Your task to perform on an android device: see tabs open on other devices in the chrome app Image 0: 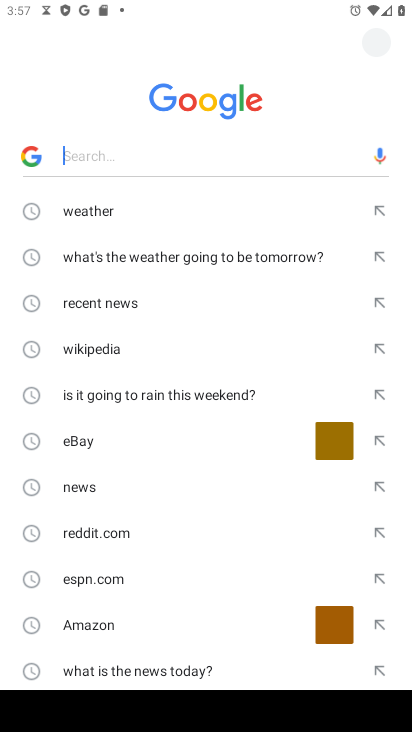
Step 0: press back button
Your task to perform on an android device: see tabs open on other devices in the chrome app Image 1: 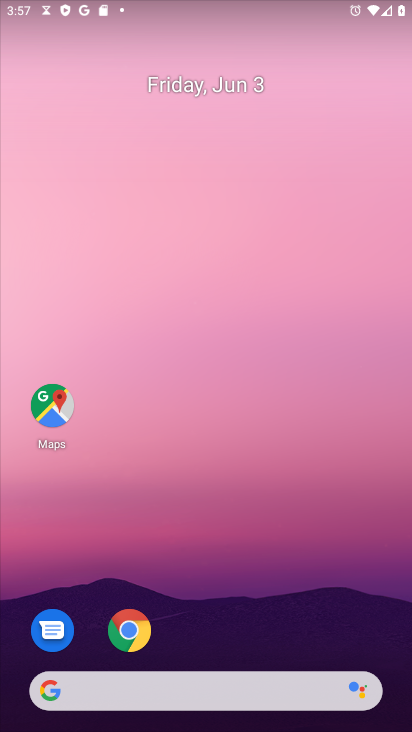
Step 1: drag from (249, 598) to (242, 7)
Your task to perform on an android device: see tabs open on other devices in the chrome app Image 2: 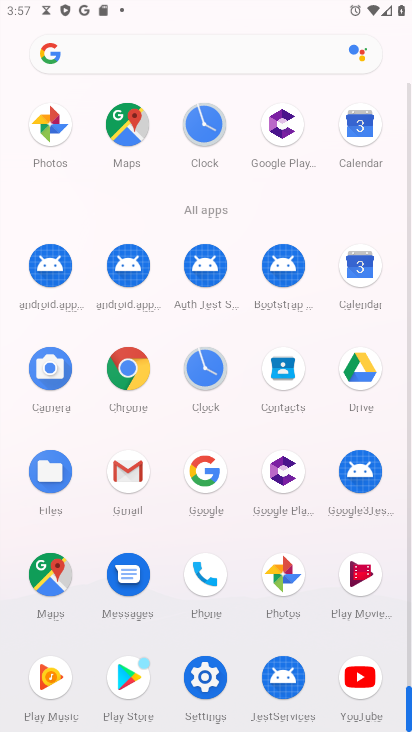
Step 2: drag from (7, 586) to (28, 262)
Your task to perform on an android device: see tabs open on other devices in the chrome app Image 3: 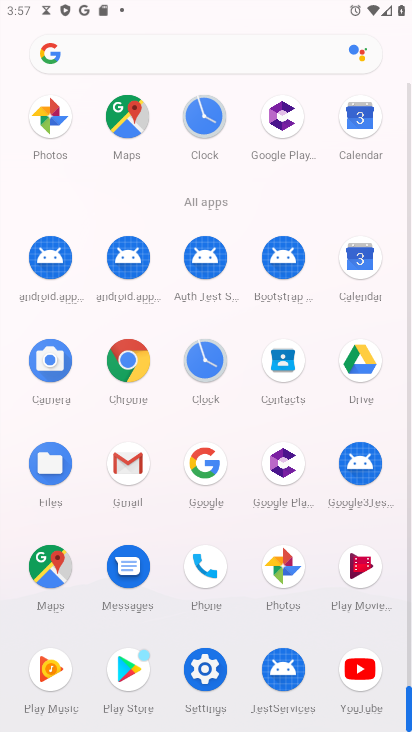
Step 3: click (203, 357)
Your task to perform on an android device: see tabs open on other devices in the chrome app Image 4: 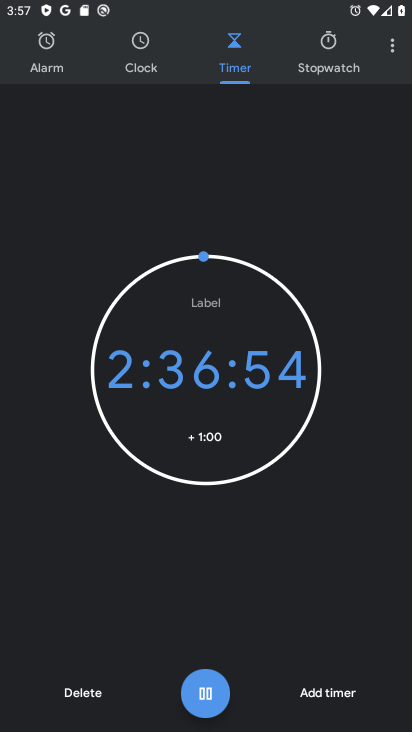
Step 4: press back button
Your task to perform on an android device: see tabs open on other devices in the chrome app Image 5: 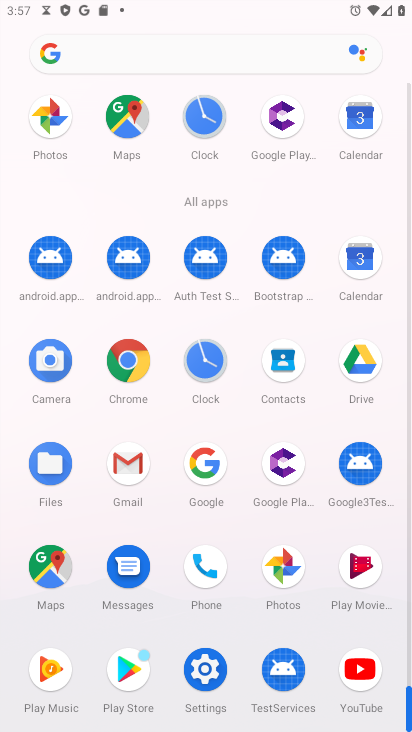
Step 5: click (130, 359)
Your task to perform on an android device: see tabs open on other devices in the chrome app Image 6: 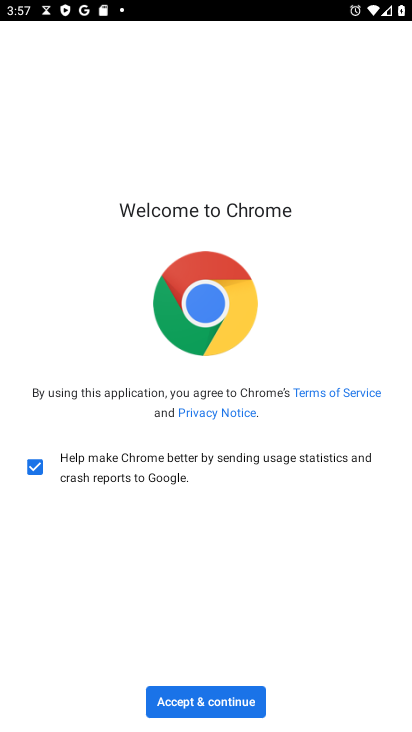
Step 6: click (215, 697)
Your task to perform on an android device: see tabs open on other devices in the chrome app Image 7: 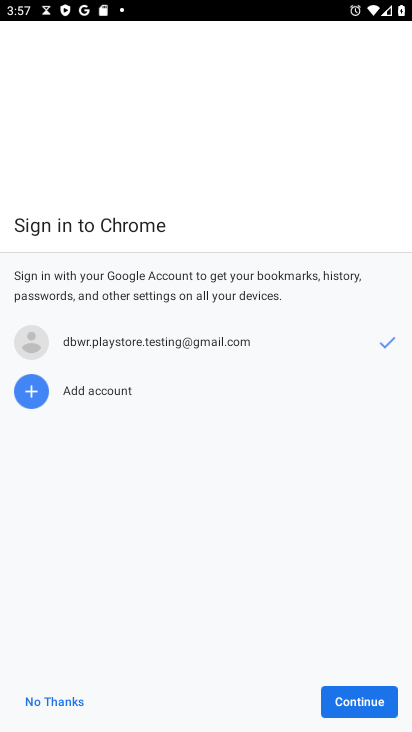
Step 7: click (340, 706)
Your task to perform on an android device: see tabs open on other devices in the chrome app Image 8: 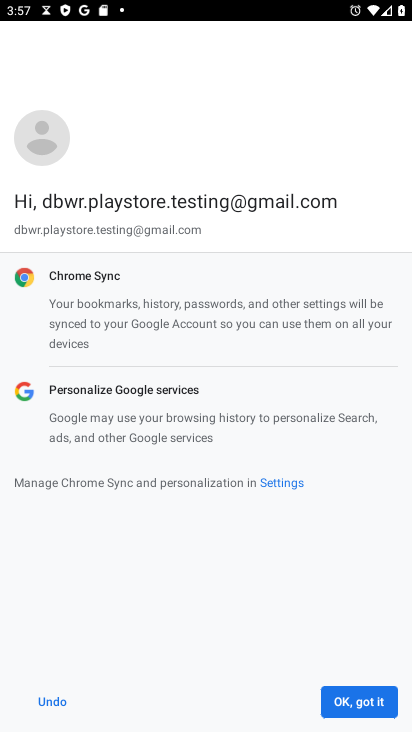
Step 8: click (348, 696)
Your task to perform on an android device: see tabs open on other devices in the chrome app Image 9: 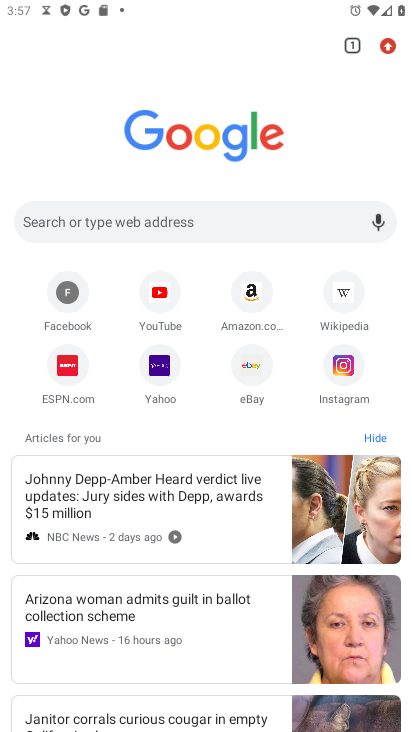
Step 9: task complete